Your task to perform on an android device: Open settings Image 0: 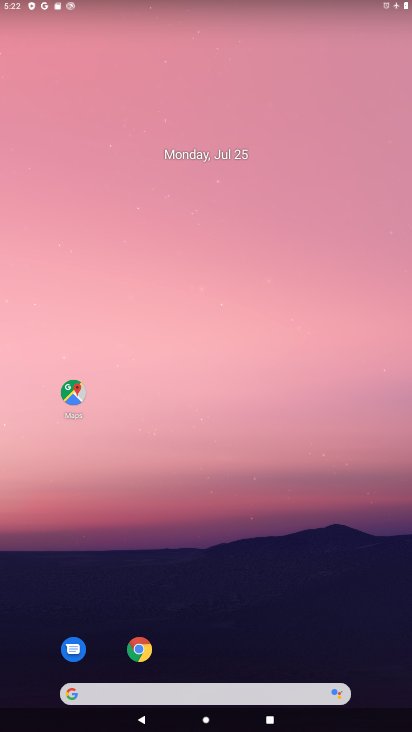
Step 0: drag from (285, 699) to (376, 461)
Your task to perform on an android device: Open settings Image 1: 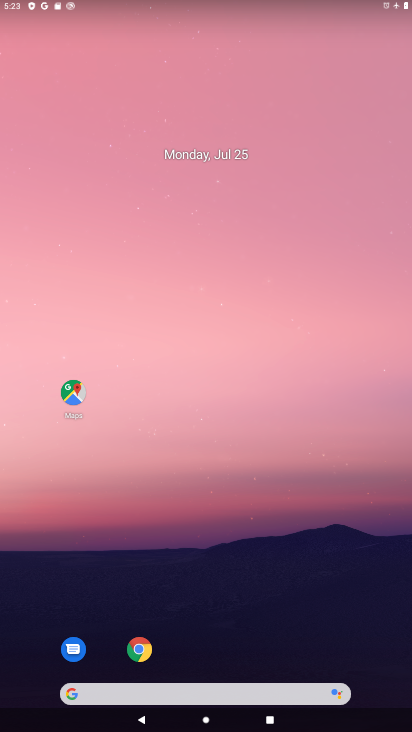
Step 1: drag from (231, 689) to (255, 186)
Your task to perform on an android device: Open settings Image 2: 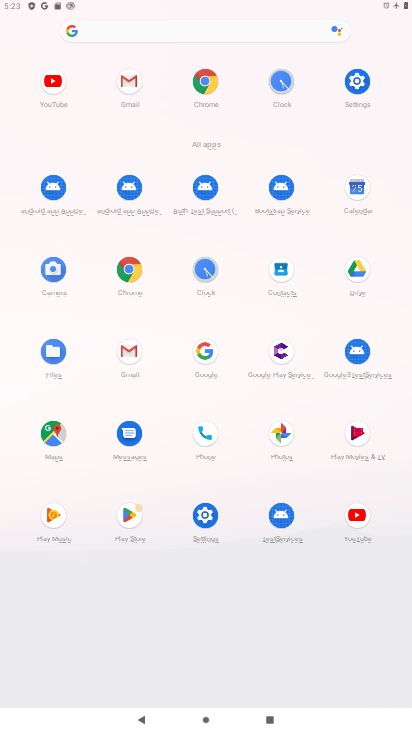
Step 2: click (352, 84)
Your task to perform on an android device: Open settings Image 3: 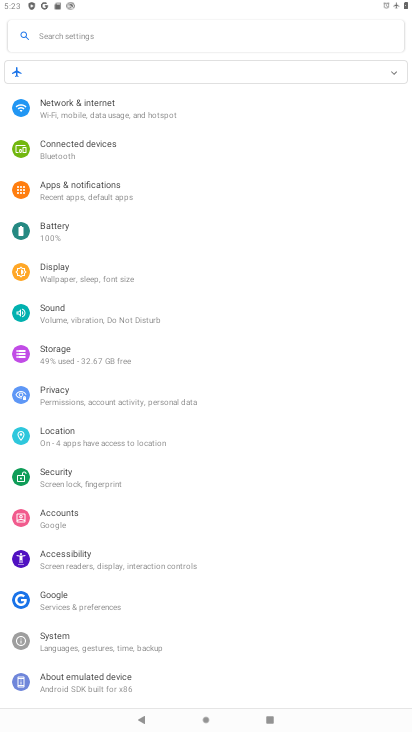
Step 3: task complete